Your task to perform on an android device: Add usb-c to the cart on newegg.com Image 0: 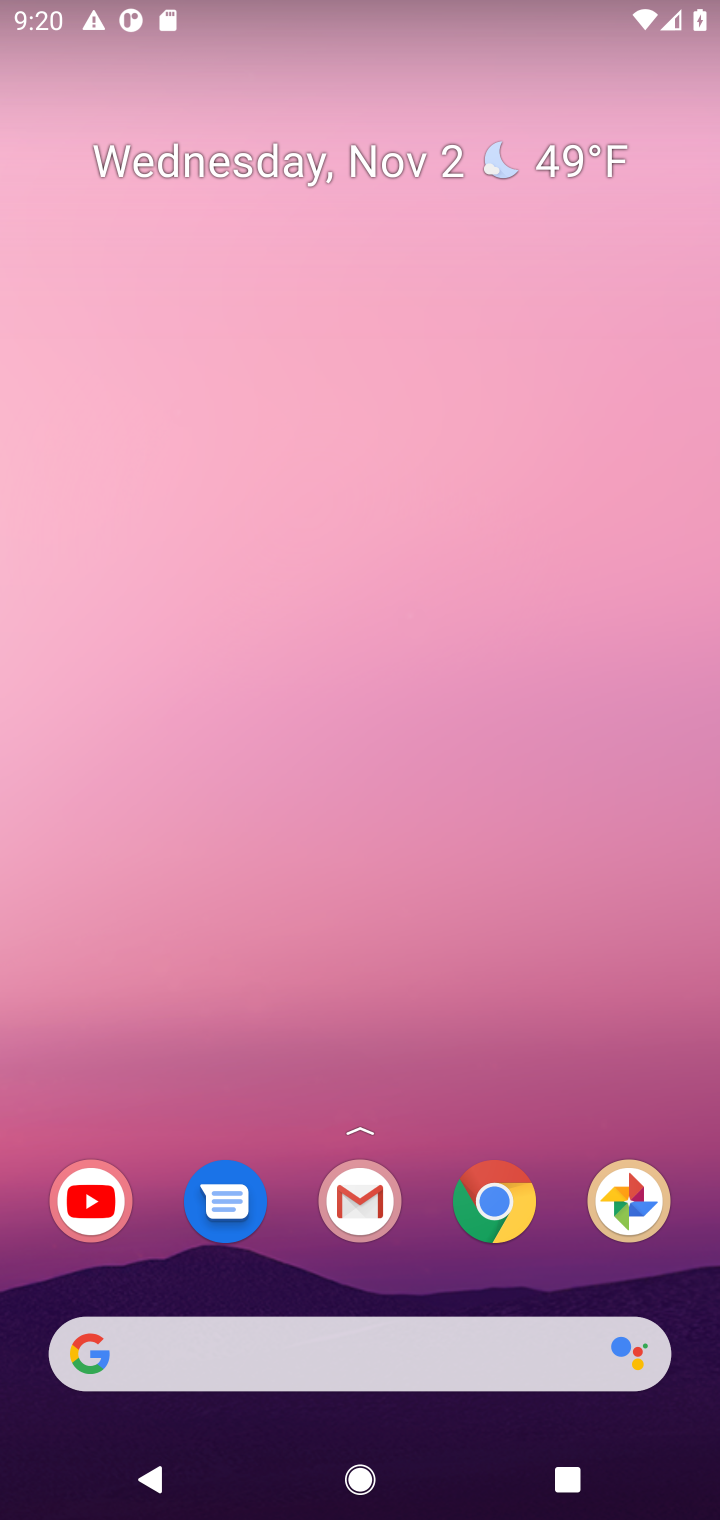
Step 0: drag from (402, 1291) to (482, 210)
Your task to perform on an android device: Add usb-c to the cart on newegg.com Image 1: 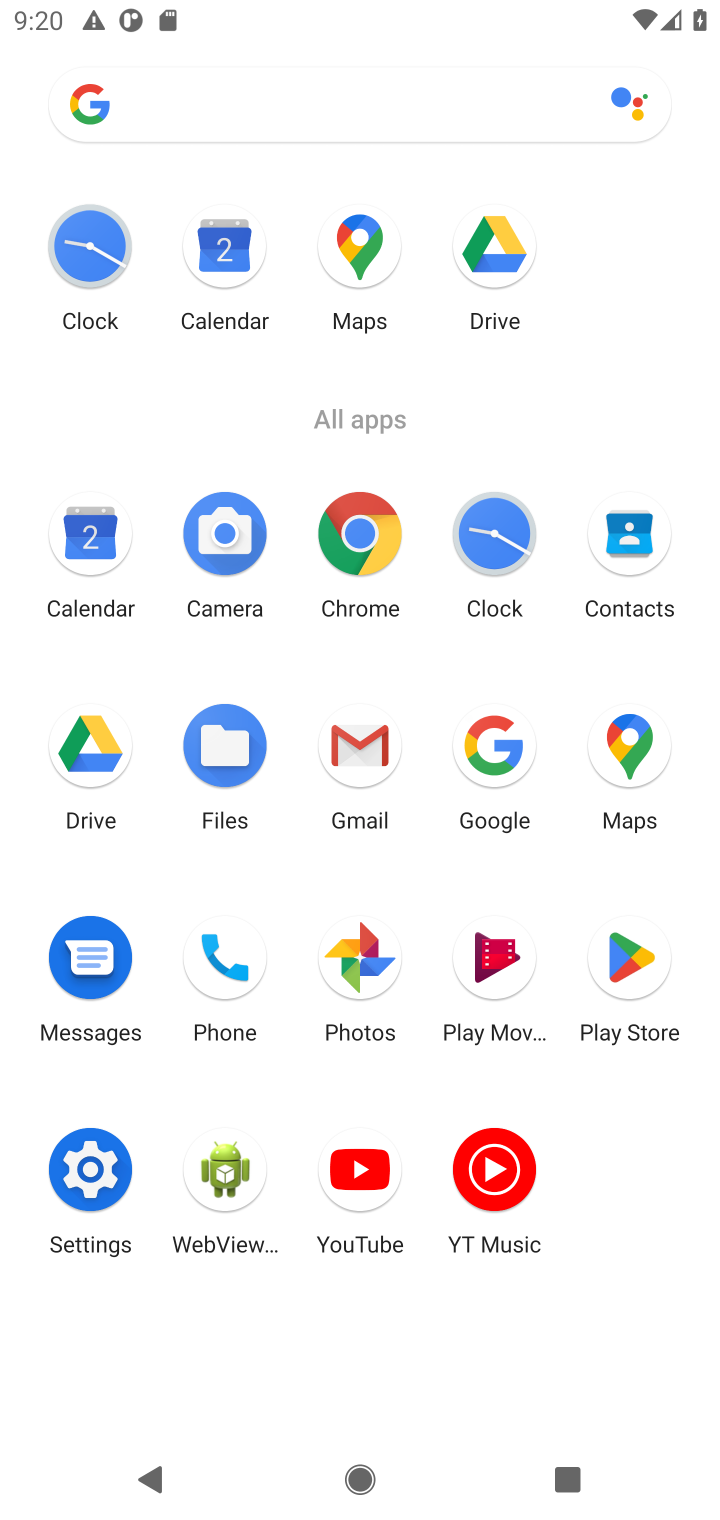
Step 1: click (342, 529)
Your task to perform on an android device: Add usb-c to the cart on newegg.com Image 2: 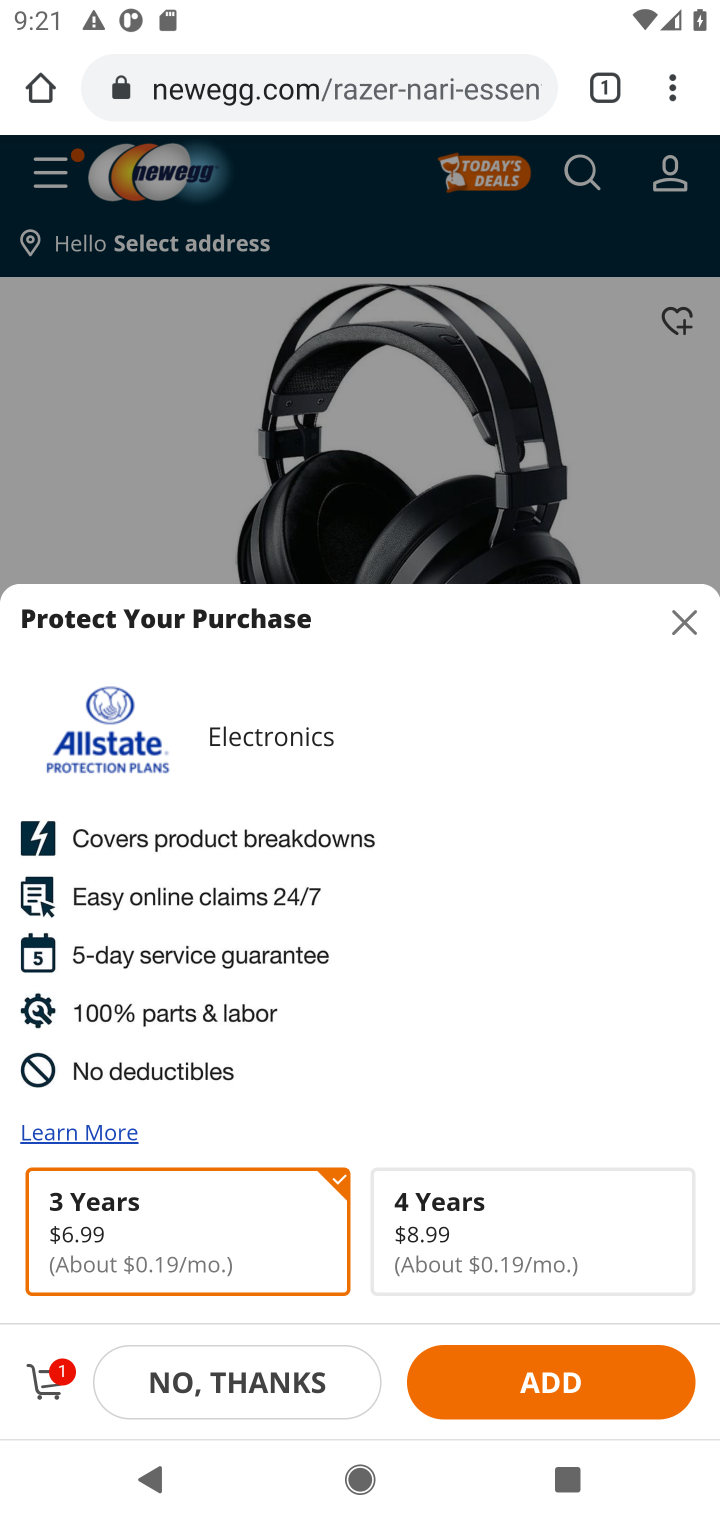
Step 2: click (563, 183)
Your task to perform on an android device: Add usb-c to the cart on newegg.com Image 3: 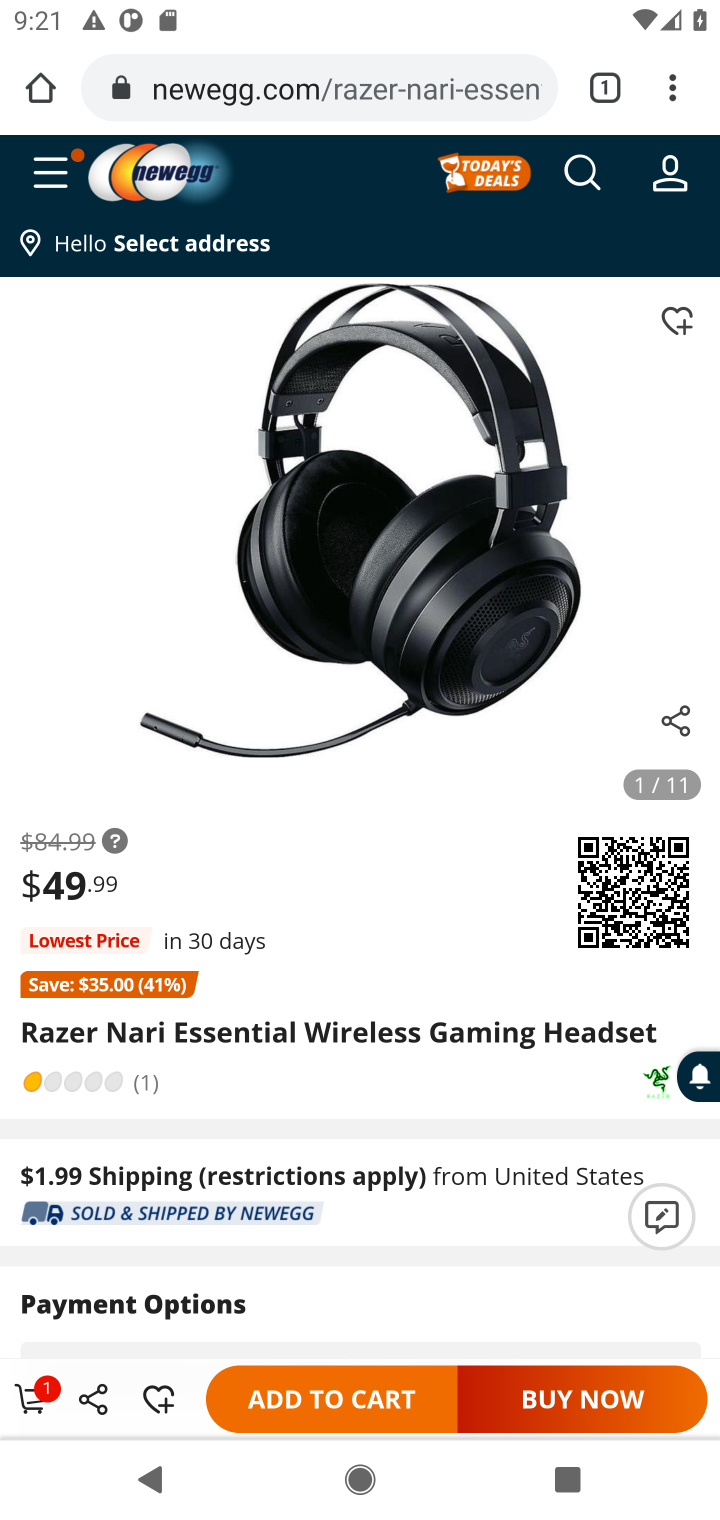
Step 3: click (576, 188)
Your task to perform on an android device: Add usb-c to the cart on newegg.com Image 4: 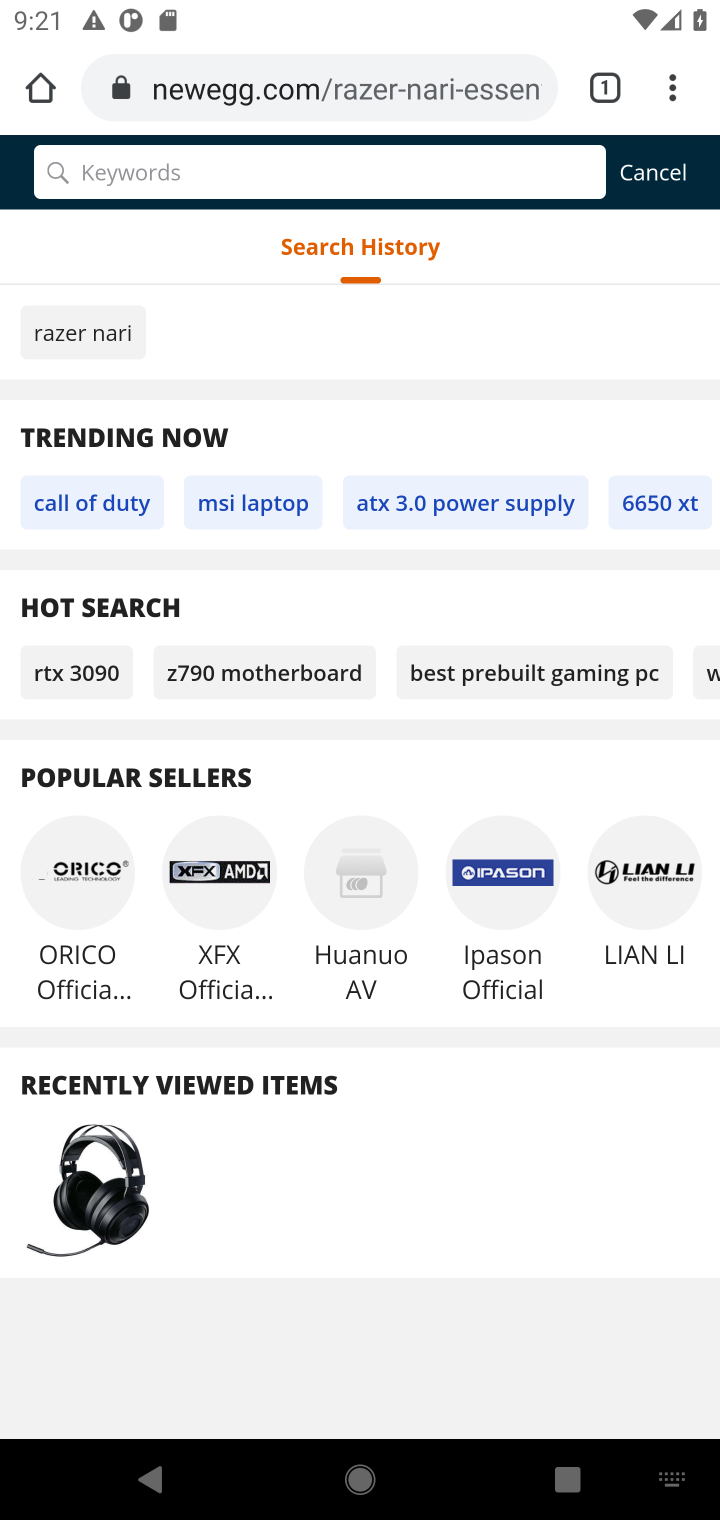
Step 4: type "usb-c"
Your task to perform on an android device: Add usb-c to the cart on newegg.com Image 5: 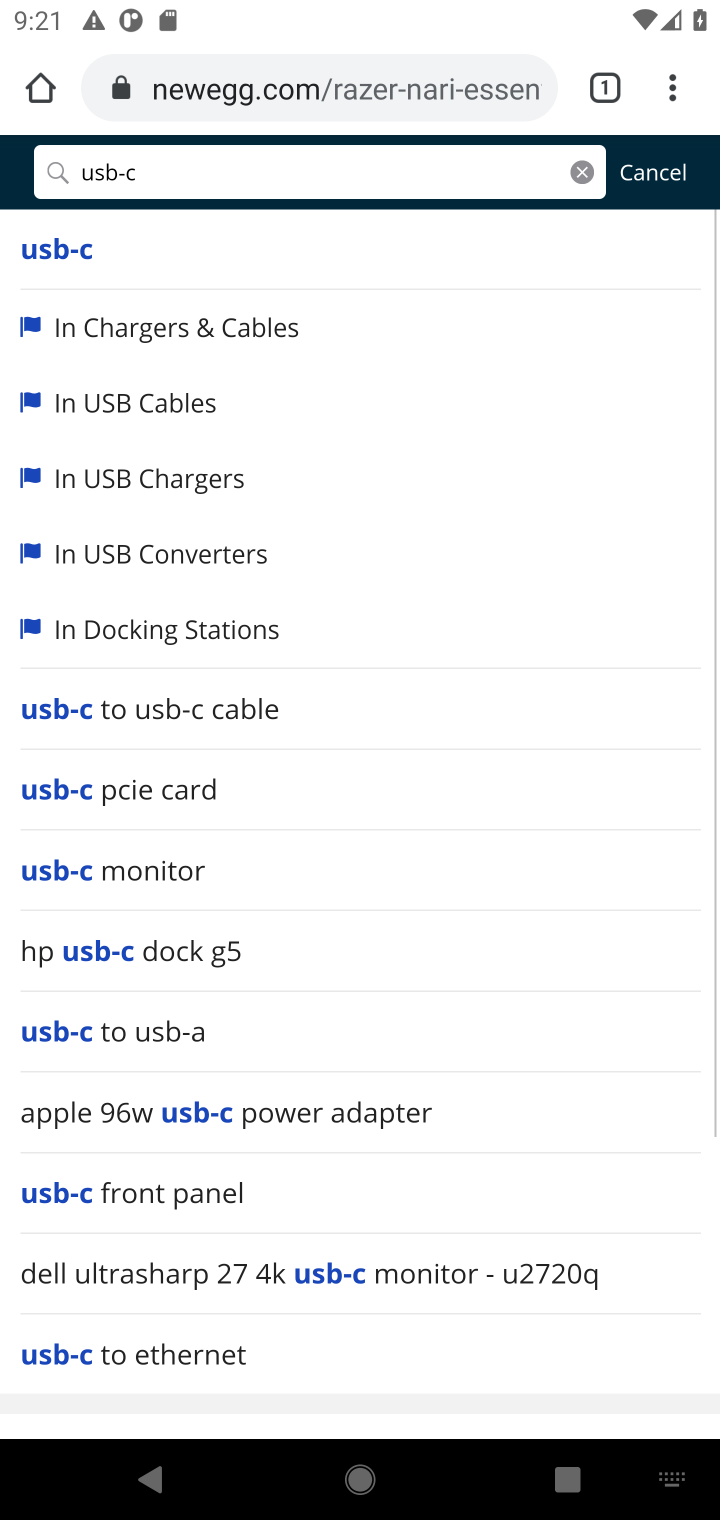
Step 5: press enter
Your task to perform on an android device: Add usb-c to the cart on newegg.com Image 6: 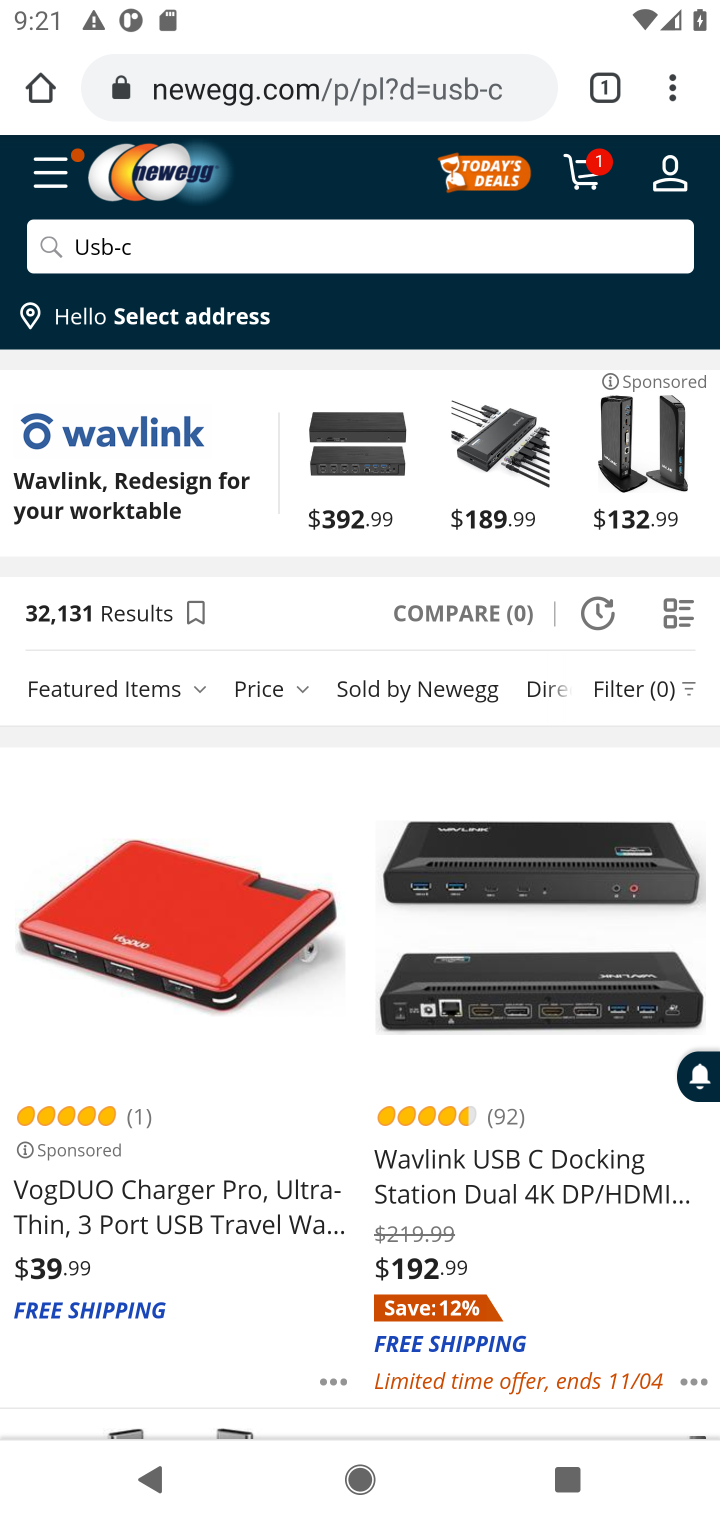
Step 6: click (542, 1193)
Your task to perform on an android device: Add usb-c to the cart on newegg.com Image 7: 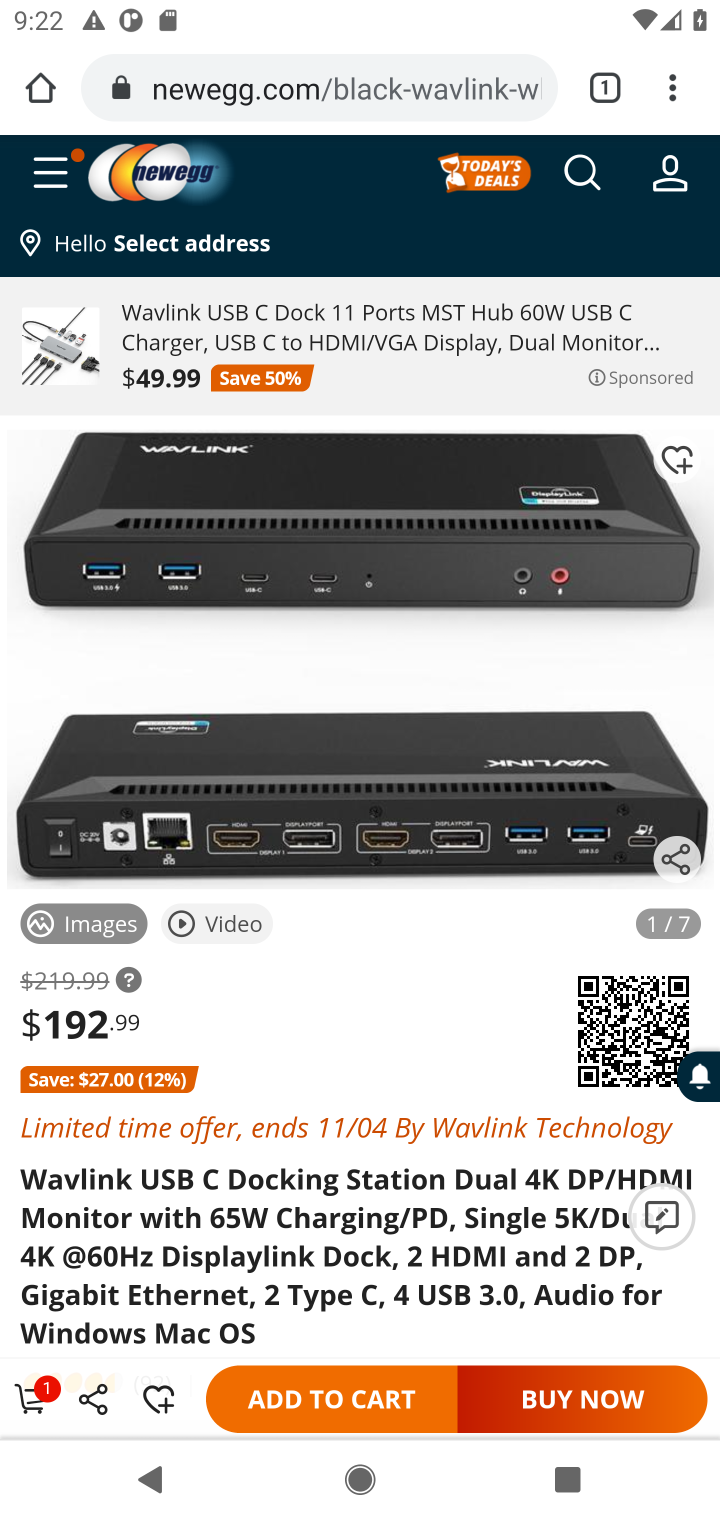
Step 7: click (348, 1415)
Your task to perform on an android device: Add usb-c to the cart on newegg.com Image 8: 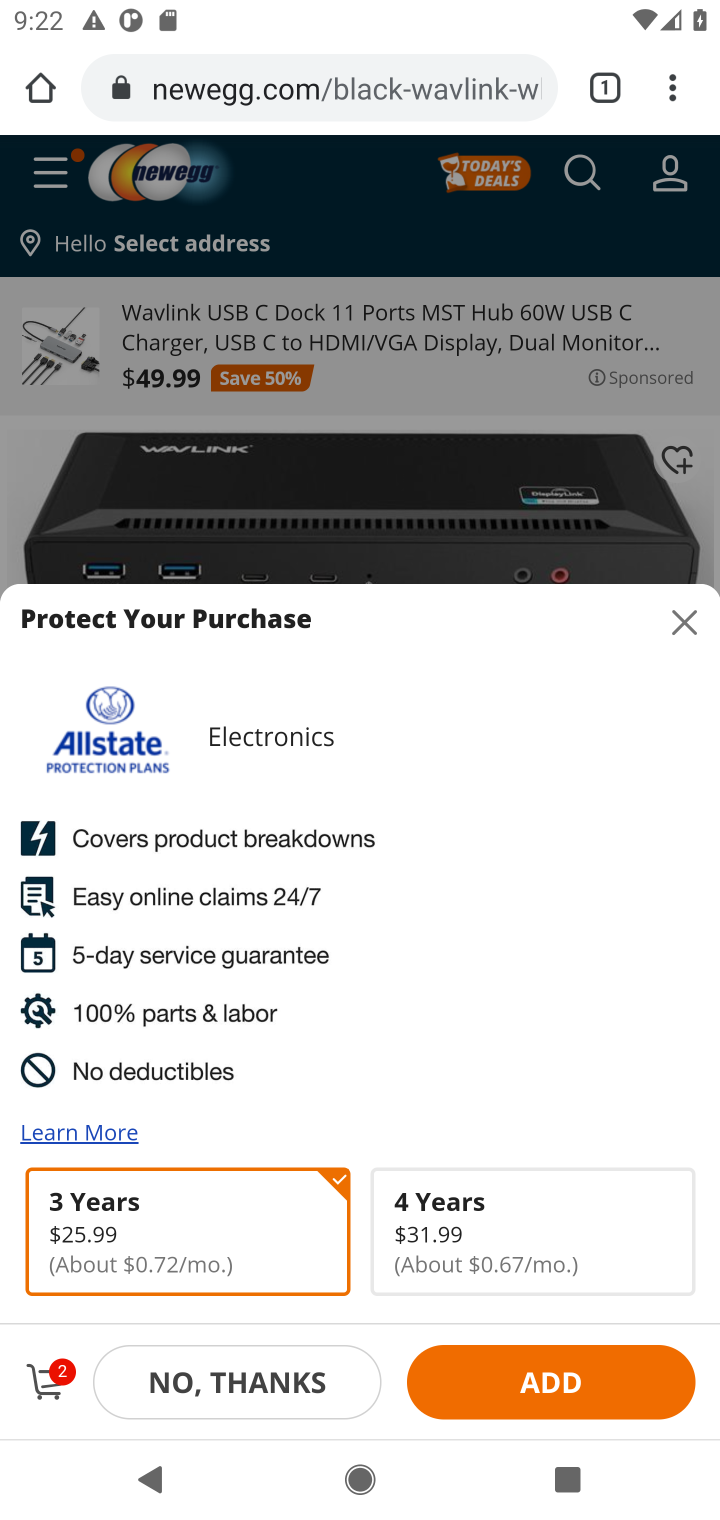
Step 8: task complete